Your task to perform on an android device: Open the stopwatch Image 0: 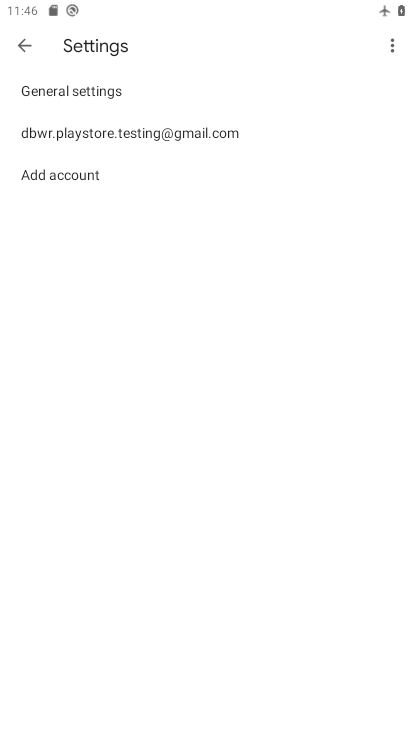
Step 0: press home button
Your task to perform on an android device: Open the stopwatch Image 1: 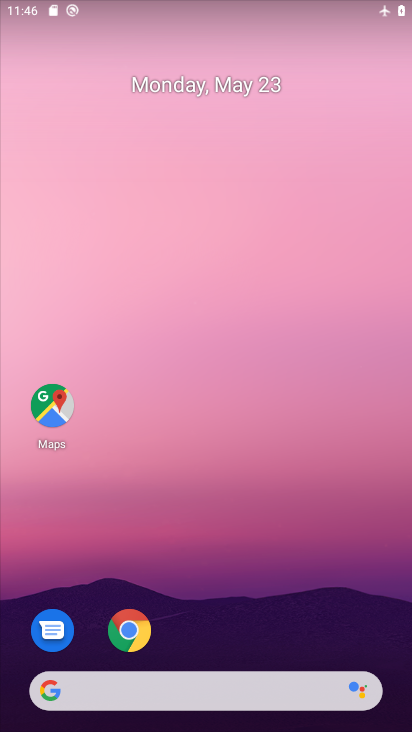
Step 1: drag from (234, 347) to (238, 7)
Your task to perform on an android device: Open the stopwatch Image 2: 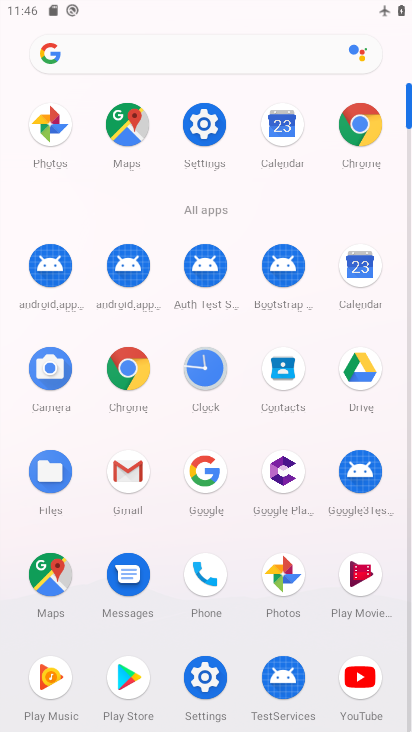
Step 2: click (215, 383)
Your task to perform on an android device: Open the stopwatch Image 3: 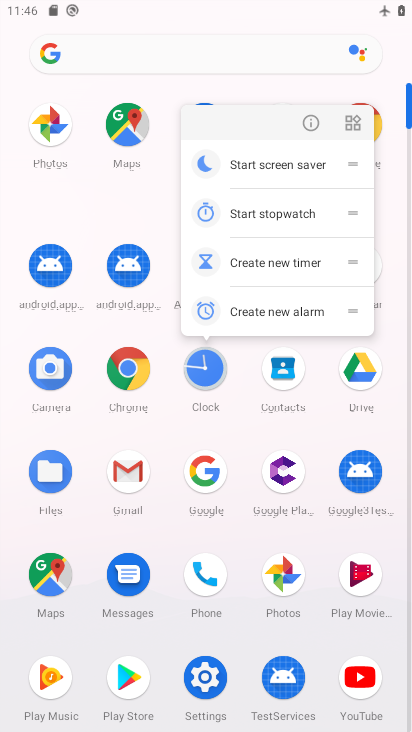
Step 3: click (201, 387)
Your task to perform on an android device: Open the stopwatch Image 4: 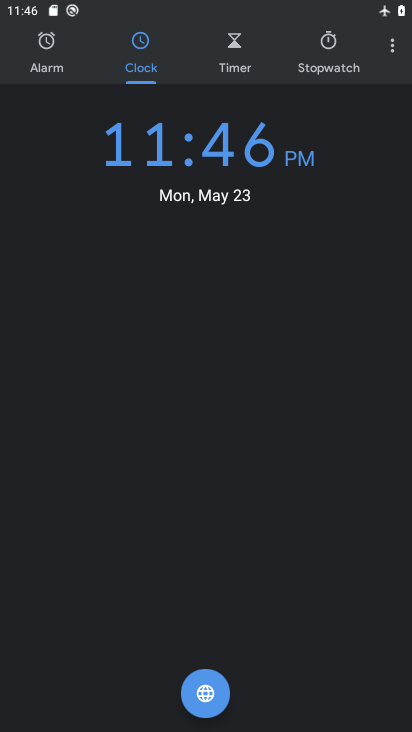
Step 4: click (340, 62)
Your task to perform on an android device: Open the stopwatch Image 5: 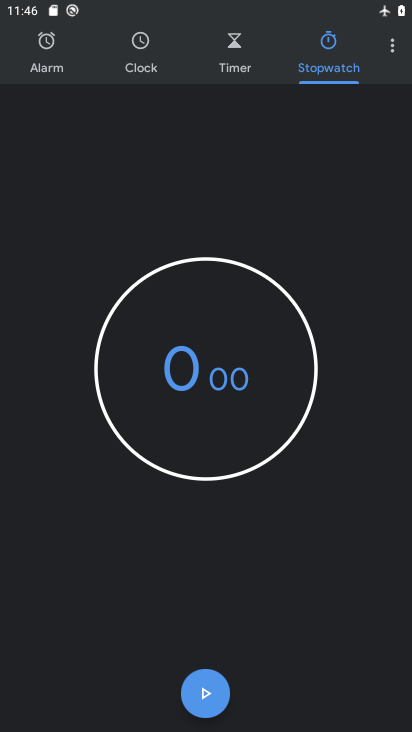
Step 5: click (211, 699)
Your task to perform on an android device: Open the stopwatch Image 6: 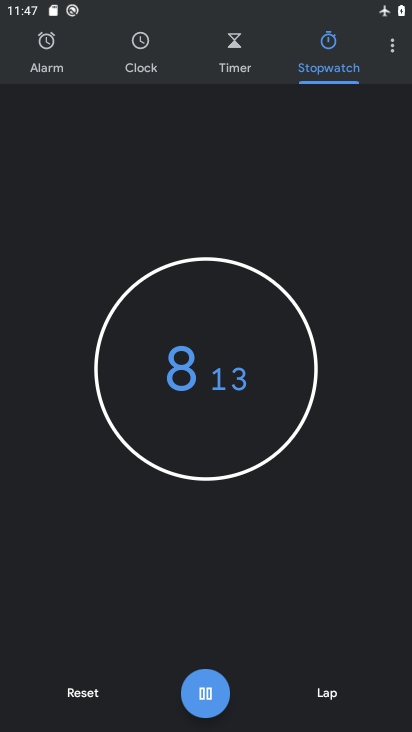
Step 6: task complete